Your task to perform on an android device: turn on the 24-hour format for clock Image 0: 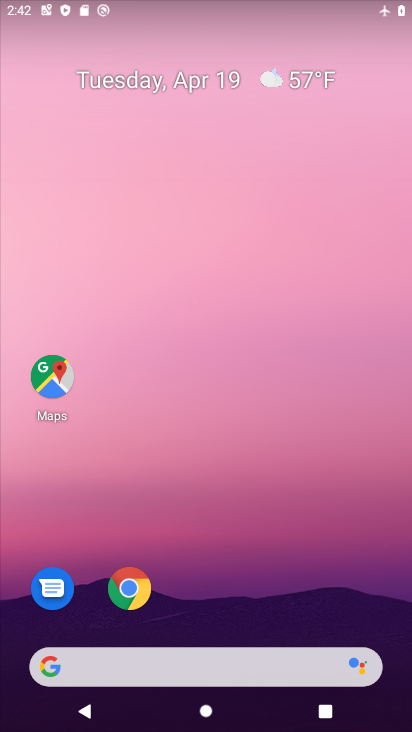
Step 0: drag from (235, 530) to (265, 103)
Your task to perform on an android device: turn on the 24-hour format for clock Image 1: 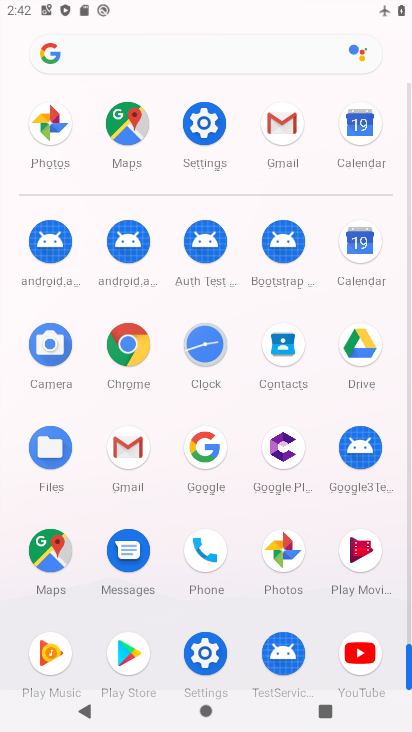
Step 1: click (207, 349)
Your task to perform on an android device: turn on the 24-hour format for clock Image 2: 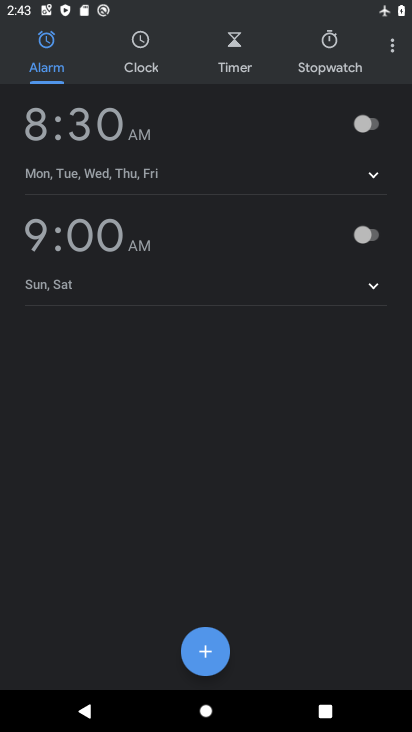
Step 2: click (393, 55)
Your task to perform on an android device: turn on the 24-hour format for clock Image 3: 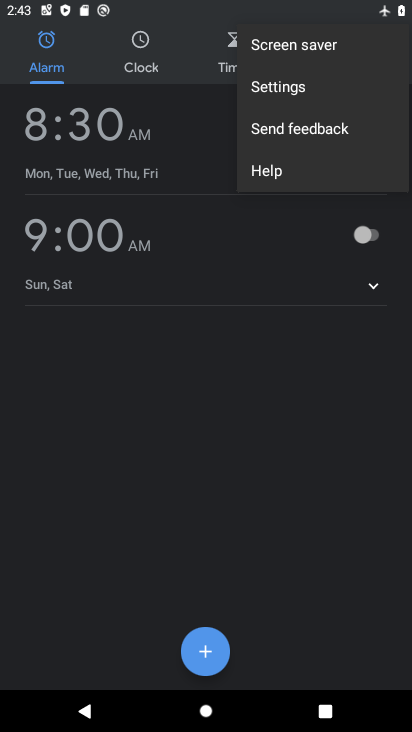
Step 3: click (354, 86)
Your task to perform on an android device: turn on the 24-hour format for clock Image 4: 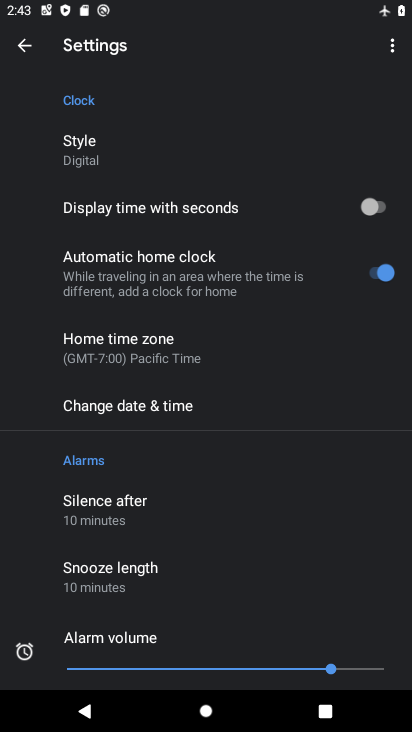
Step 4: click (271, 409)
Your task to perform on an android device: turn on the 24-hour format for clock Image 5: 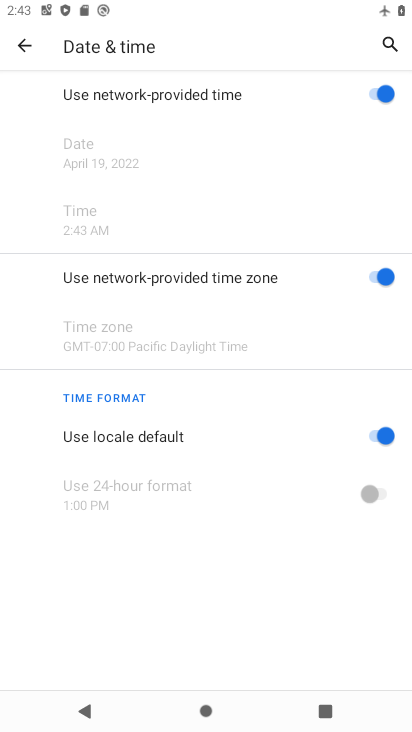
Step 5: click (372, 435)
Your task to perform on an android device: turn on the 24-hour format for clock Image 6: 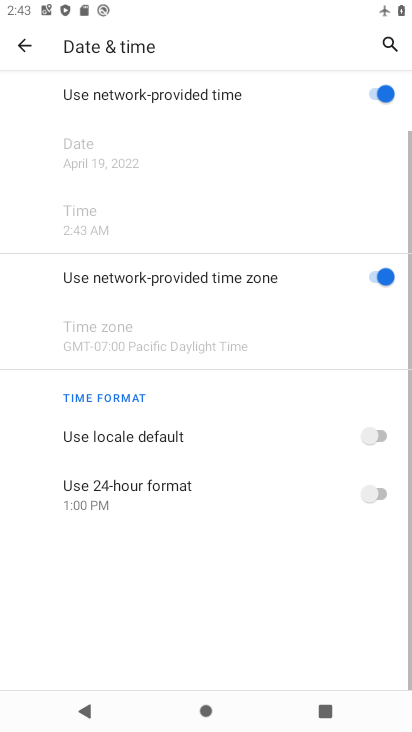
Step 6: click (369, 492)
Your task to perform on an android device: turn on the 24-hour format for clock Image 7: 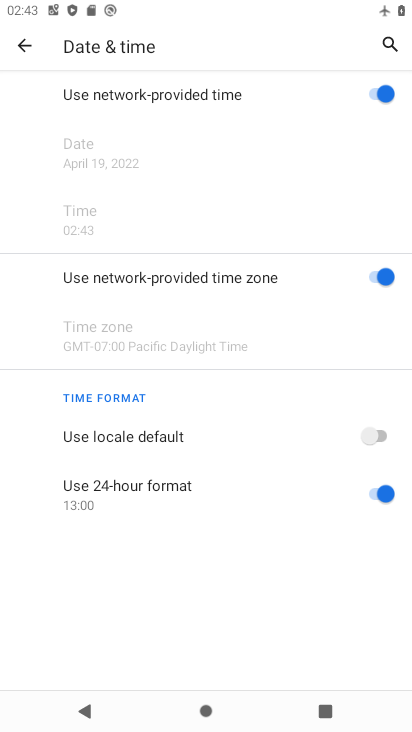
Step 7: task complete